Your task to perform on an android device: Go to CNN.com Image 0: 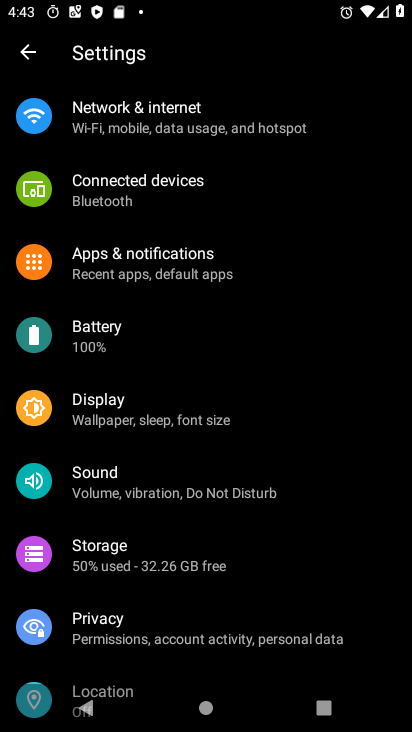
Step 0: press home button
Your task to perform on an android device: Go to CNN.com Image 1: 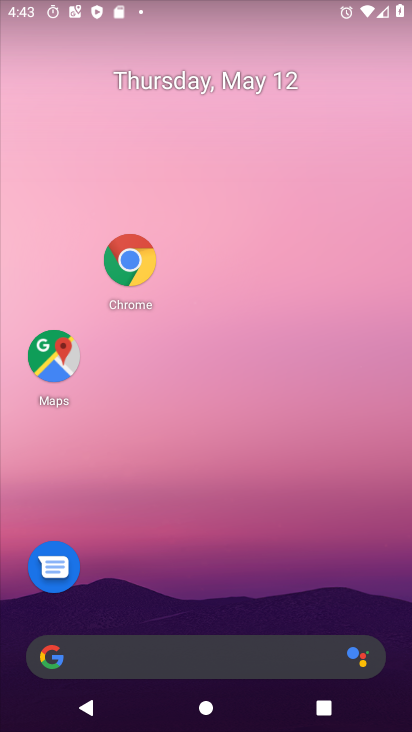
Step 1: drag from (182, 635) to (182, 248)
Your task to perform on an android device: Go to CNN.com Image 2: 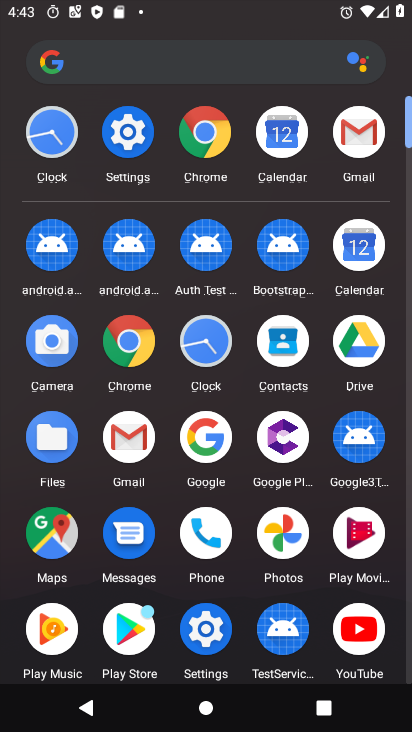
Step 2: click (207, 441)
Your task to perform on an android device: Go to CNN.com Image 3: 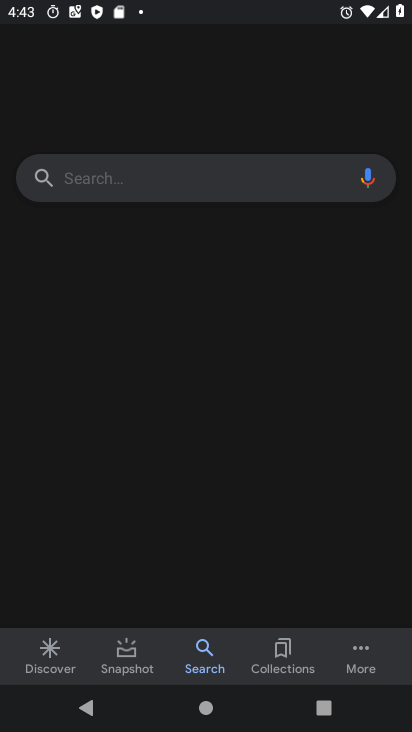
Step 3: click (121, 190)
Your task to perform on an android device: Go to CNN.com Image 4: 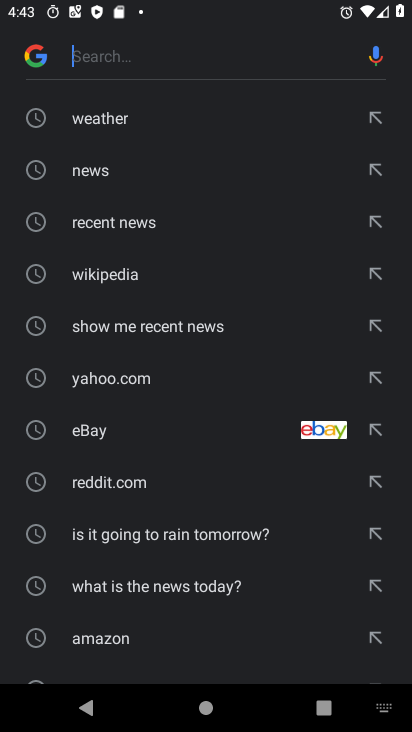
Step 4: drag from (147, 647) to (141, 326)
Your task to perform on an android device: Go to CNN.com Image 5: 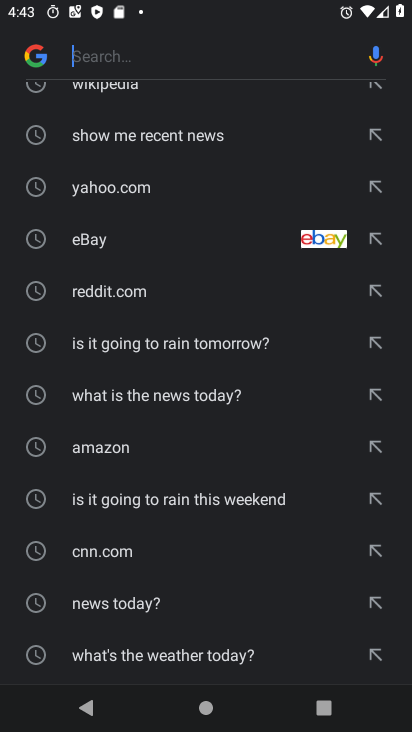
Step 5: click (102, 554)
Your task to perform on an android device: Go to CNN.com Image 6: 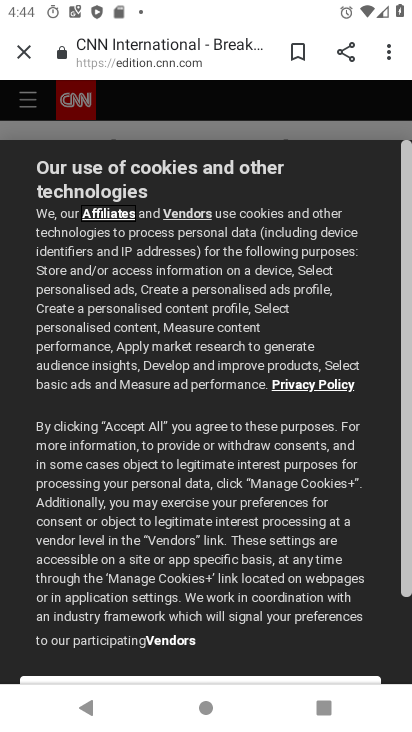
Step 6: task complete